Your task to perform on an android device: turn on sleep mode Image 0: 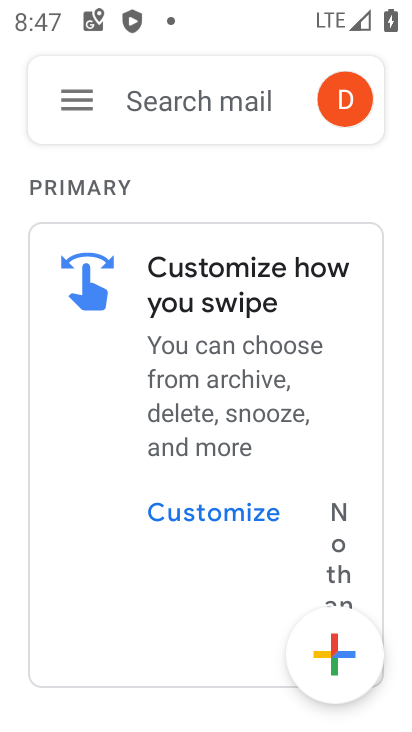
Step 0: press home button
Your task to perform on an android device: turn on sleep mode Image 1: 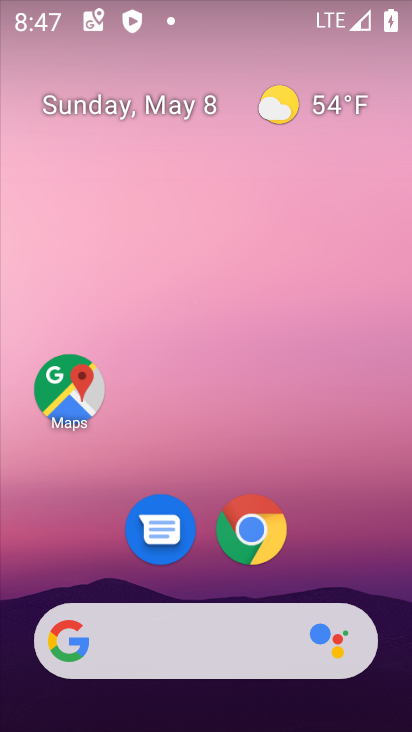
Step 1: drag from (381, 577) to (393, 0)
Your task to perform on an android device: turn on sleep mode Image 2: 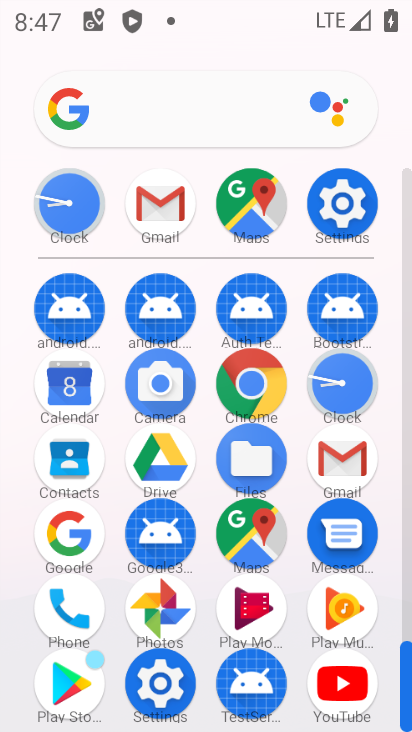
Step 2: click (351, 216)
Your task to perform on an android device: turn on sleep mode Image 3: 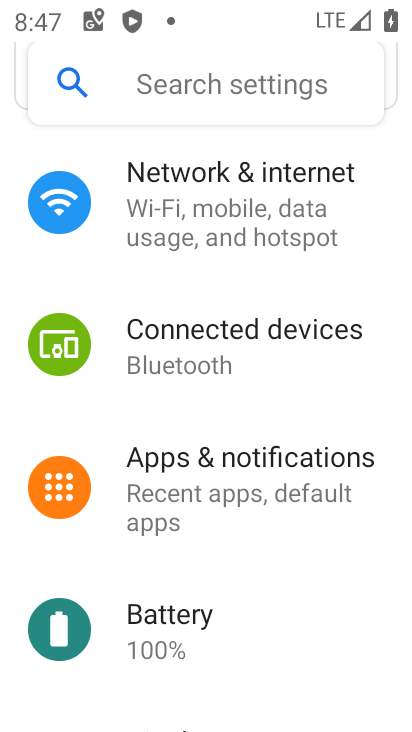
Step 3: click (264, 83)
Your task to perform on an android device: turn on sleep mode Image 4: 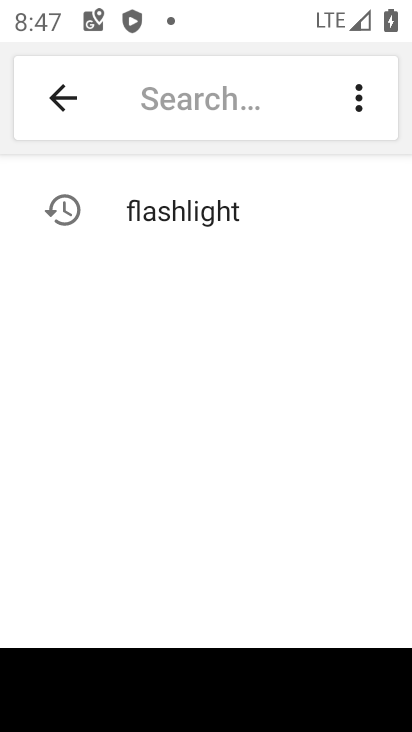
Step 4: type "sleep mode"
Your task to perform on an android device: turn on sleep mode Image 5: 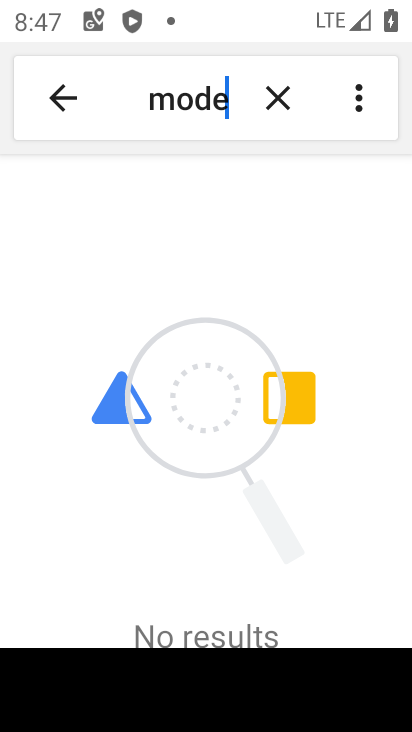
Step 5: task complete